Your task to perform on an android device: turn on improve location accuracy Image 0: 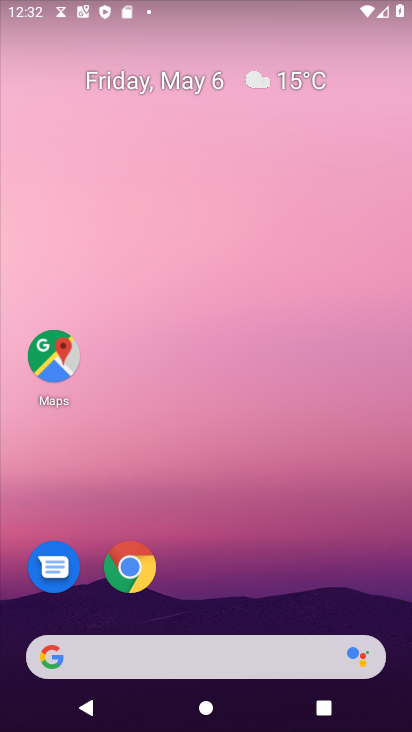
Step 0: drag from (302, 545) to (243, 118)
Your task to perform on an android device: turn on improve location accuracy Image 1: 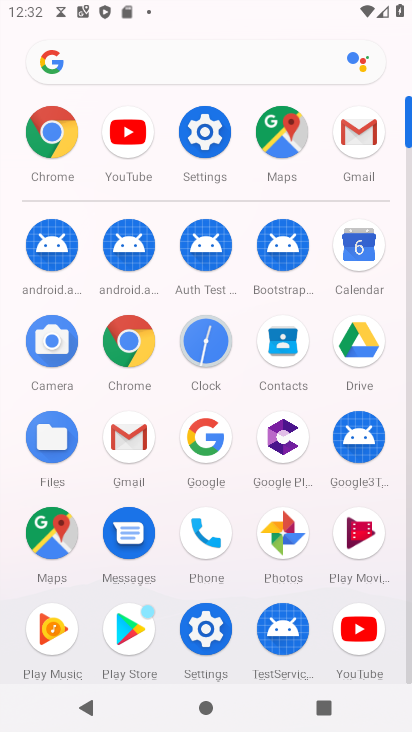
Step 1: click (207, 136)
Your task to perform on an android device: turn on improve location accuracy Image 2: 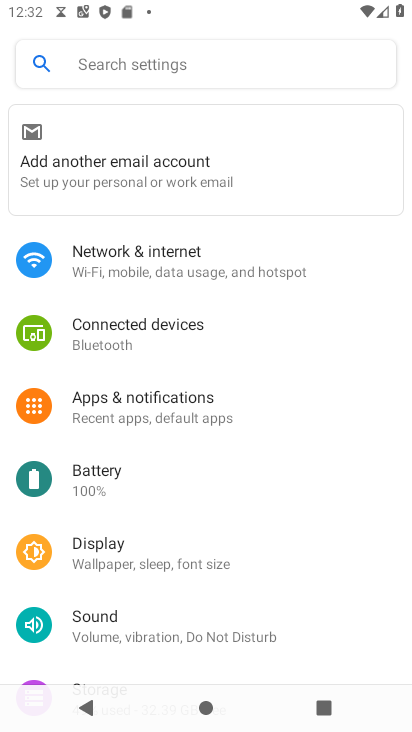
Step 2: drag from (187, 573) to (244, 254)
Your task to perform on an android device: turn on improve location accuracy Image 3: 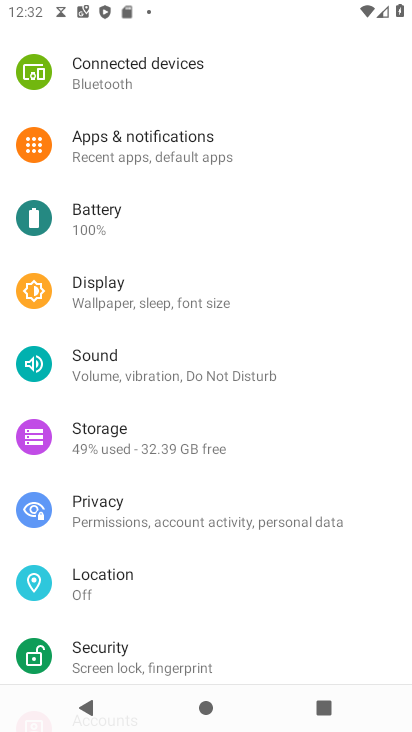
Step 3: click (113, 568)
Your task to perform on an android device: turn on improve location accuracy Image 4: 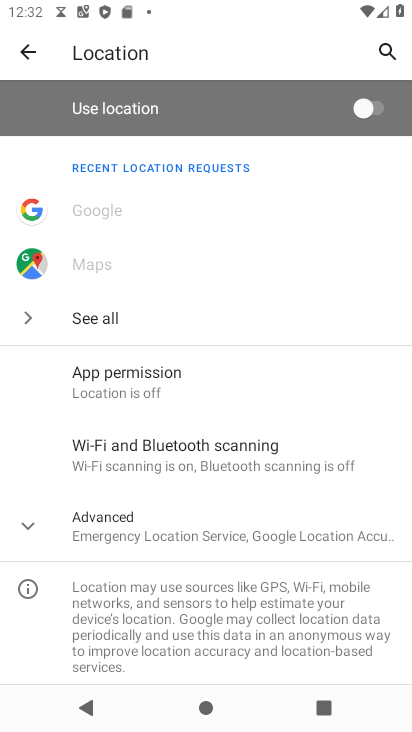
Step 4: drag from (221, 622) to (243, 306)
Your task to perform on an android device: turn on improve location accuracy Image 5: 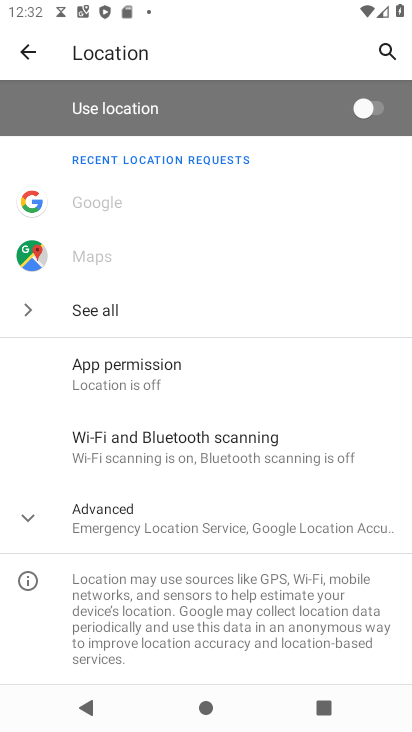
Step 5: click (151, 525)
Your task to perform on an android device: turn on improve location accuracy Image 6: 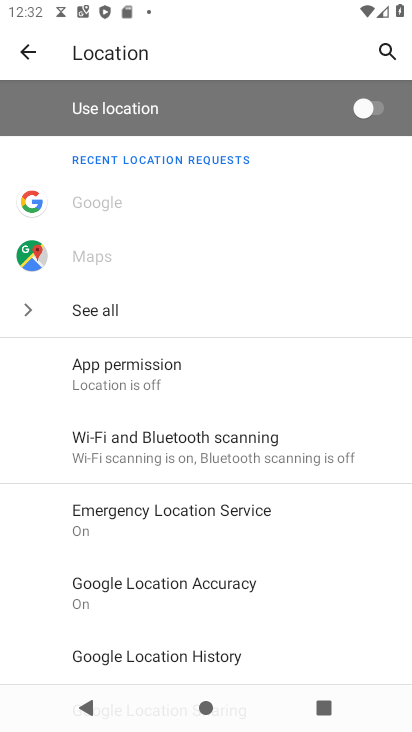
Step 6: drag from (191, 632) to (191, 279)
Your task to perform on an android device: turn on improve location accuracy Image 7: 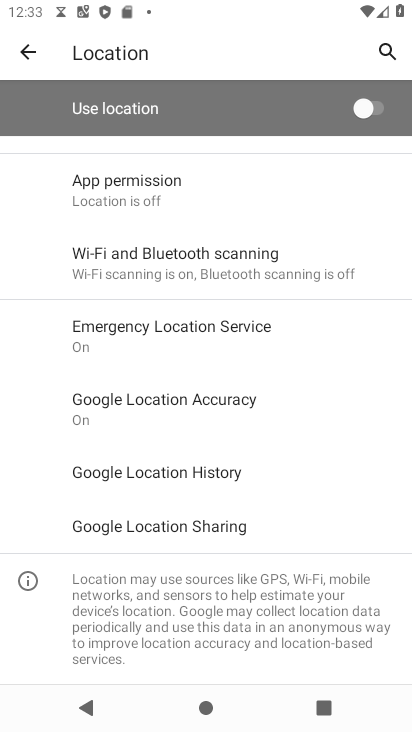
Step 7: click (178, 408)
Your task to perform on an android device: turn on improve location accuracy Image 8: 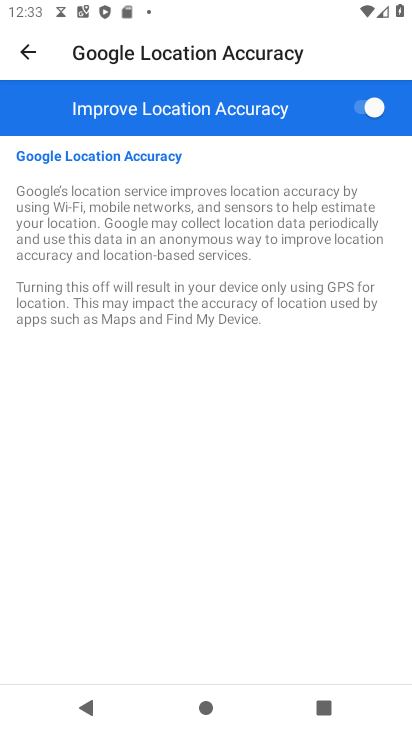
Step 8: task complete